Your task to perform on an android device: Search for seafood restaurants on Google Maps Image 0: 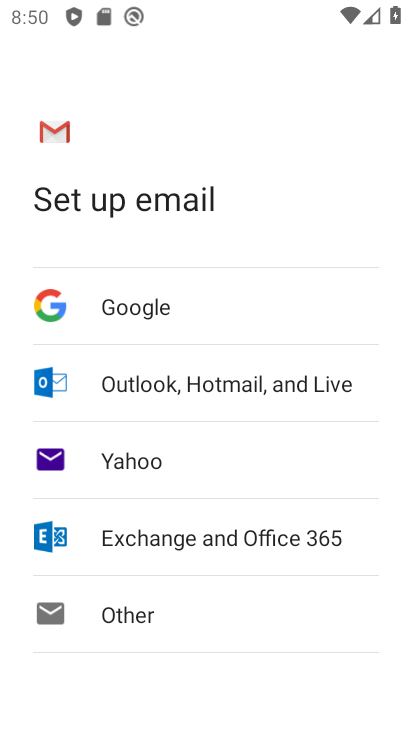
Step 0: press home button
Your task to perform on an android device: Search for seafood restaurants on Google Maps Image 1: 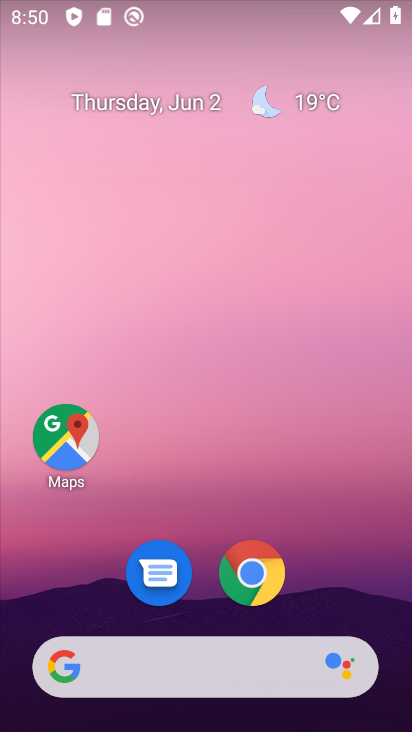
Step 1: click (71, 417)
Your task to perform on an android device: Search for seafood restaurants on Google Maps Image 2: 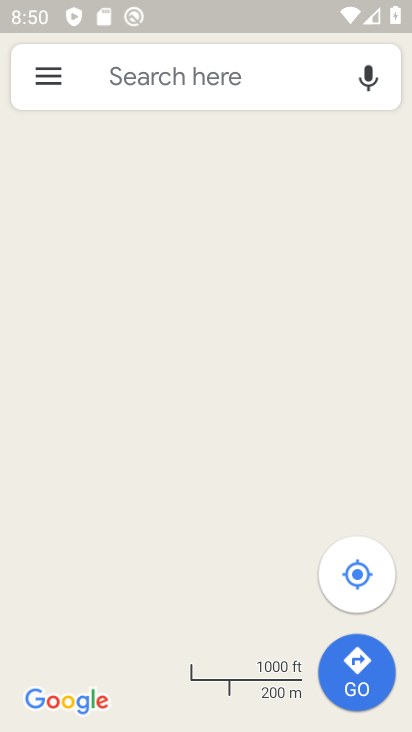
Step 2: click (204, 73)
Your task to perform on an android device: Search for seafood restaurants on Google Maps Image 3: 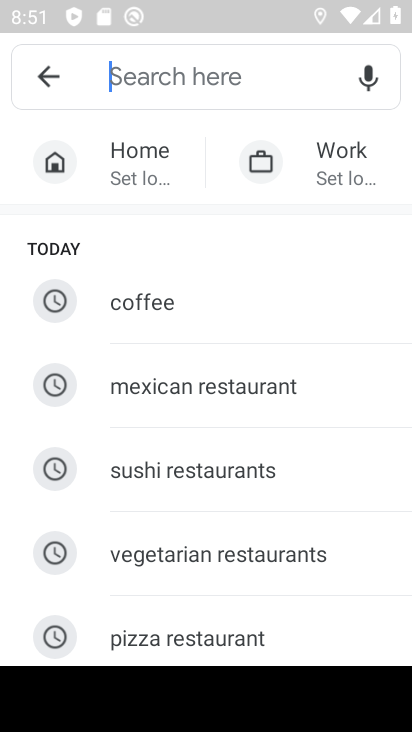
Step 3: type "seafood restaurants"
Your task to perform on an android device: Search for seafood restaurants on Google Maps Image 4: 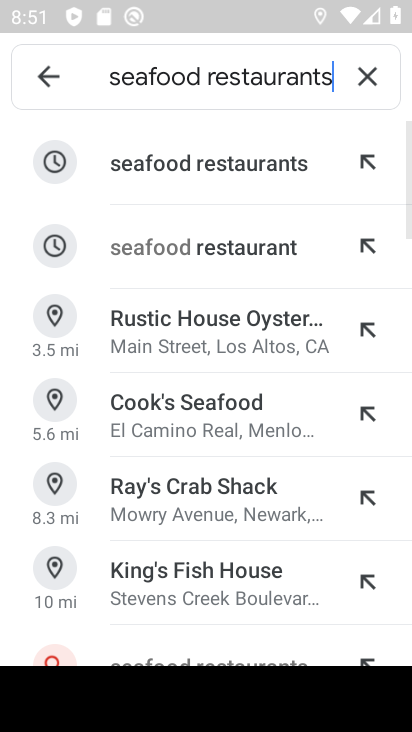
Step 4: click (196, 159)
Your task to perform on an android device: Search for seafood restaurants on Google Maps Image 5: 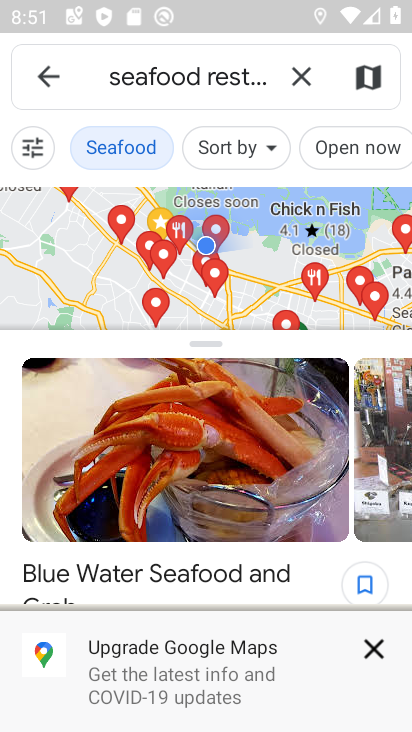
Step 5: task complete